Your task to perform on an android device: add a contact Image 0: 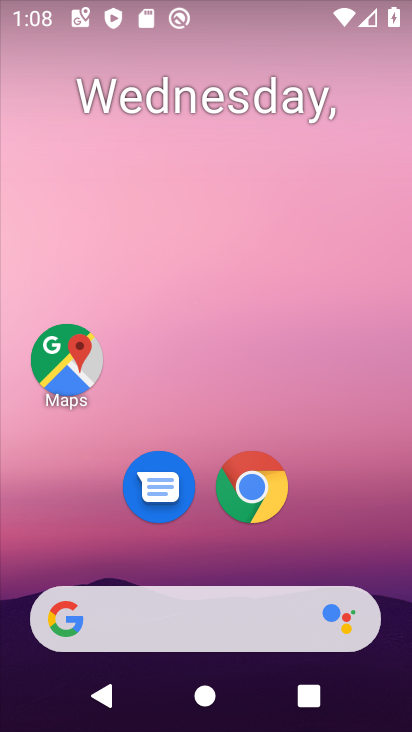
Step 0: drag from (208, 547) to (157, 3)
Your task to perform on an android device: add a contact Image 1: 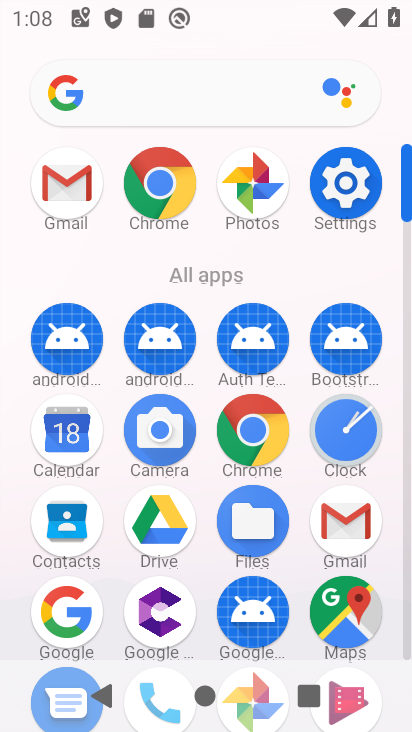
Step 1: click (72, 533)
Your task to perform on an android device: add a contact Image 2: 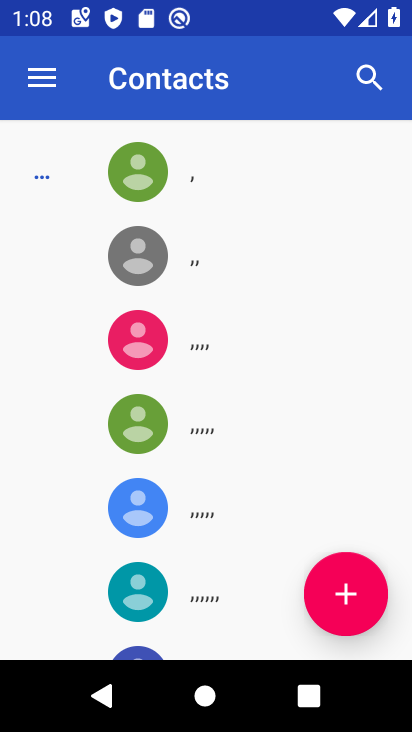
Step 2: click (360, 585)
Your task to perform on an android device: add a contact Image 3: 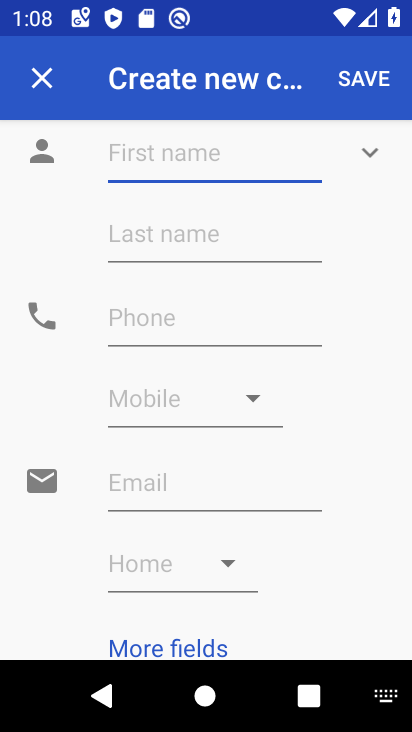
Step 3: type "castor"
Your task to perform on an android device: add a contact Image 4: 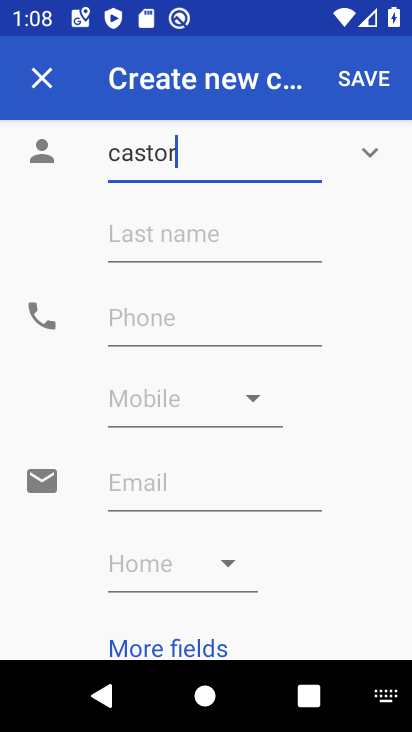
Step 4: click (369, 76)
Your task to perform on an android device: add a contact Image 5: 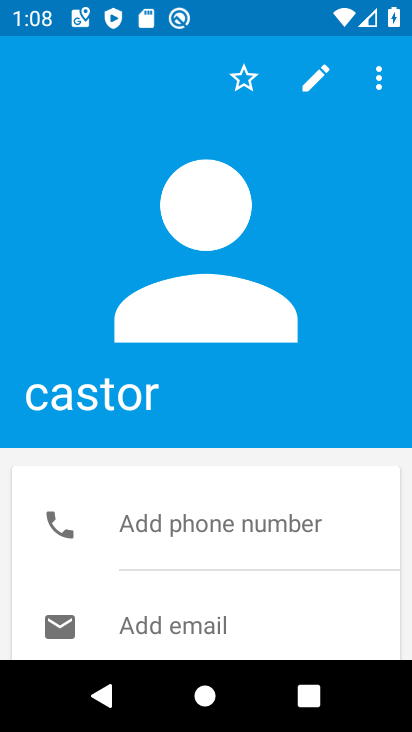
Step 5: task complete